Your task to perform on an android device: turn off wifi Image 0: 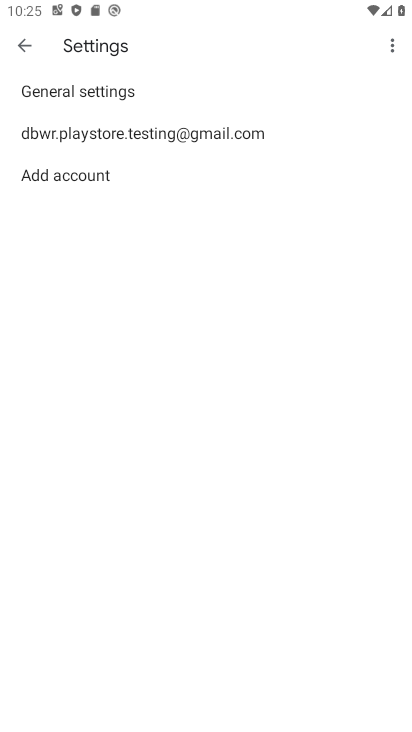
Step 0: press home button
Your task to perform on an android device: turn off wifi Image 1: 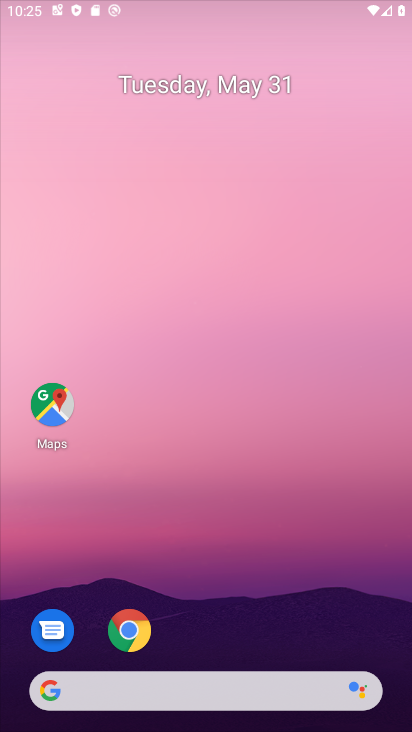
Step 1: drag from (224, 653) to (269, 219)
Your task to perform on an android device: turn off wifi Image 2: 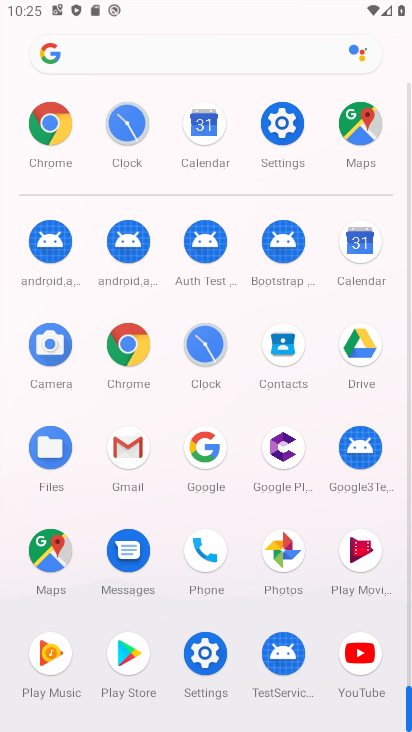
Step 2: click (274, 141)
Your task to perform on an android device: turn off wifi Image 3: 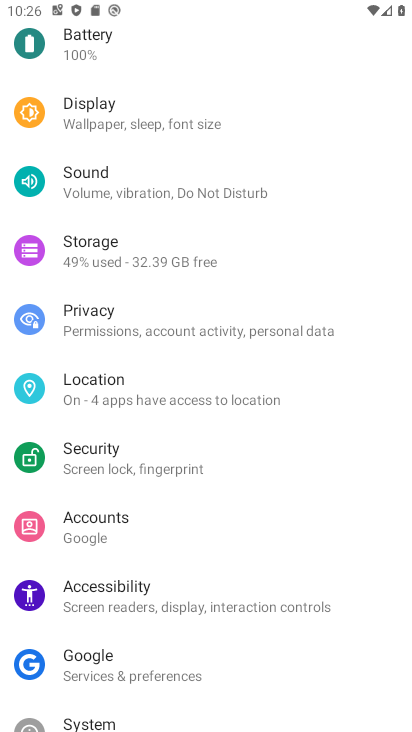
Step 3: drag from (208, 292) to (129, 558)
Your task to perform on an android device: turn off wifi Image 4: 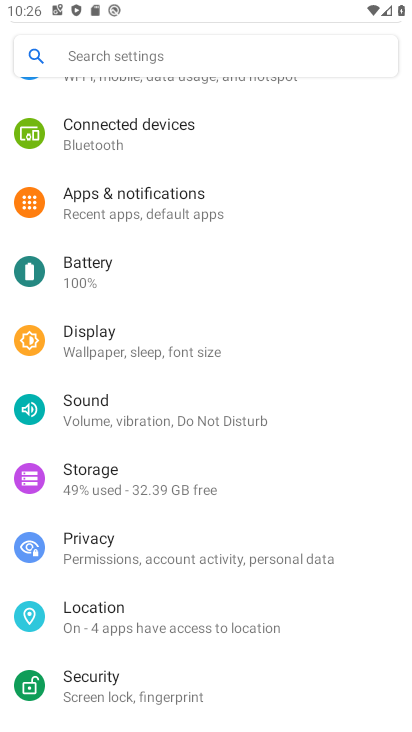
Step 4: drag from (148, 327) to (136, 569)
Your task to perform on an android device: turn off wifi Image 5: 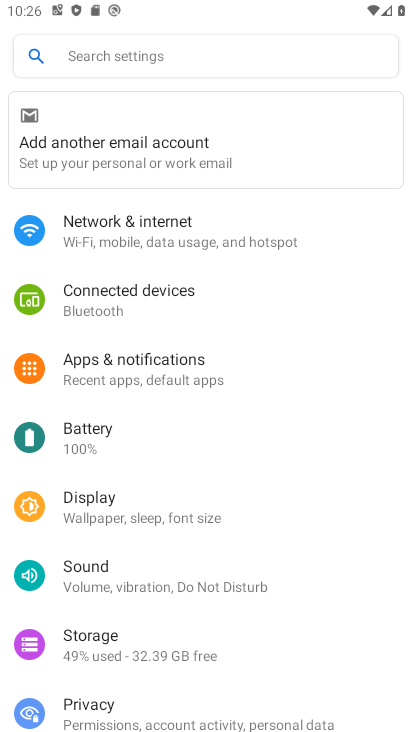
Step 5: click (211, 235)
Your task to perform on an android device: turn off wifi Image 6: 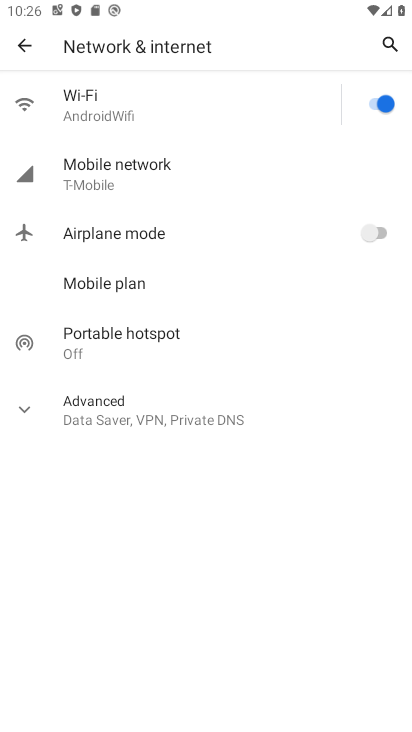
Step 6: click (369, 107)
Your task to perform on an android device: turn off wifi Image 7: 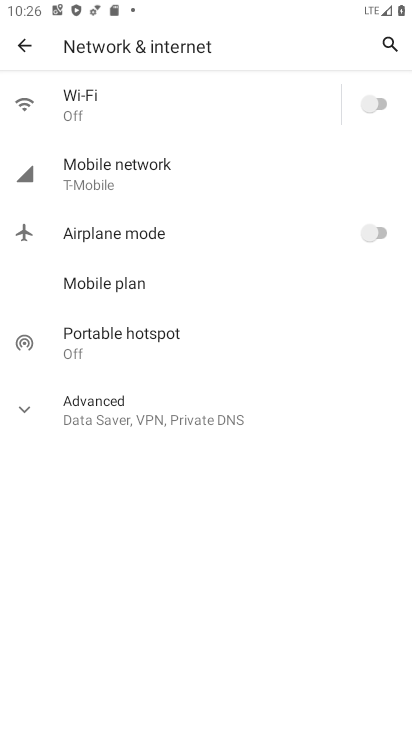
Step 7: task complete